Your task to perform on an android device: toggle notification dots Image 0: 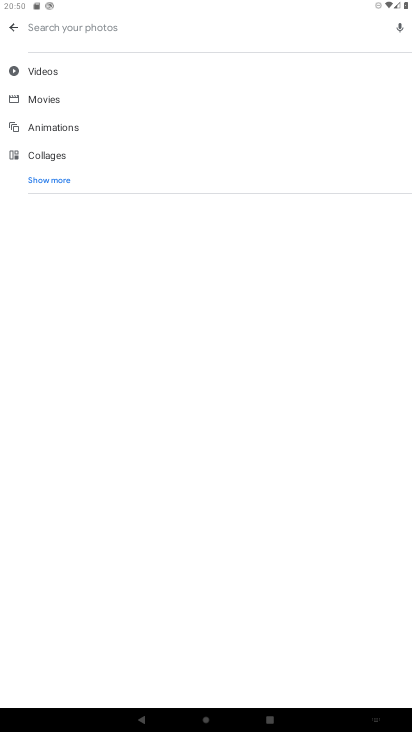
Step 0: press home button
Your task to perform on an android device: toggle notification dots Image 1: 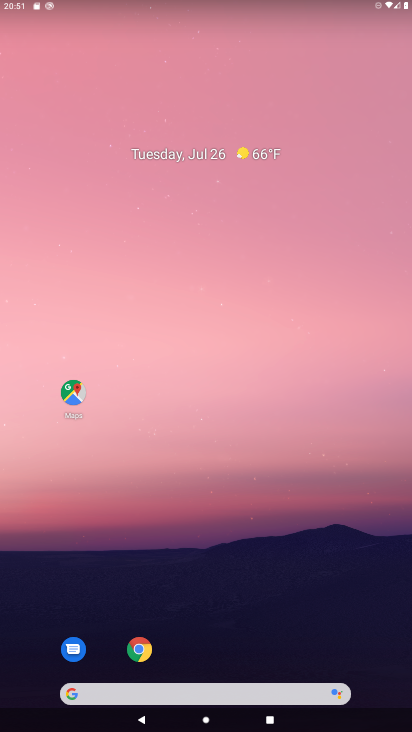
Step 1: drag from (171, 625) to (372, 277)
Your task to perform on an android device: toggle notification dots Image 2: 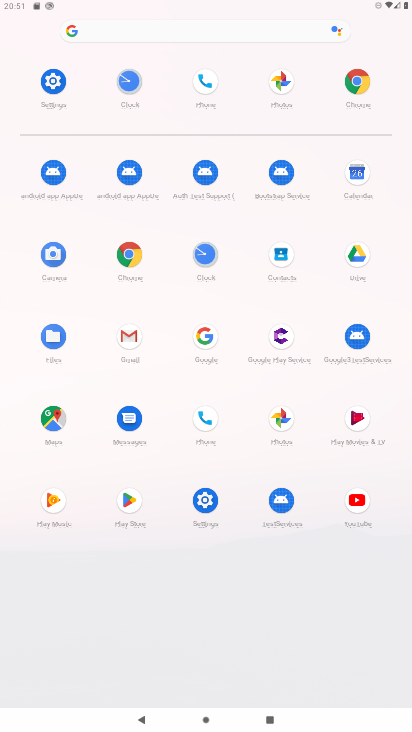
Step 2: click (59, 70)
Your task to perform on an android device: toggle notification dots Image 3: 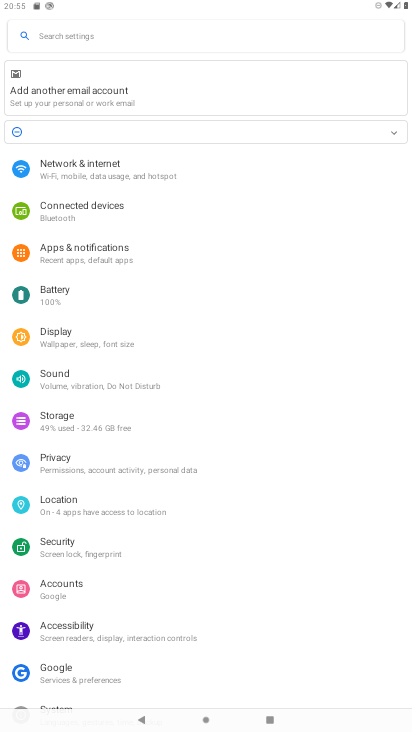
Step 3: click (83, 249)
Your task to perform on an android device: toggle notification dots Image 4: 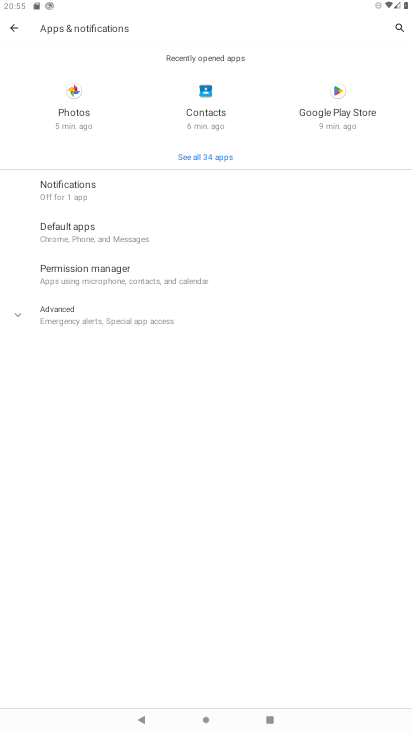
Step 4: click (107, 197)
Your task to perform on an android device: toggle notification dots Image 5: 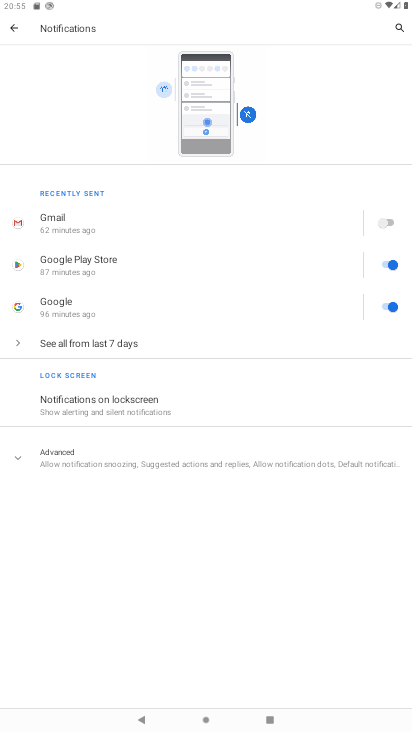
Step 5: click (146, 473)
Your task to perform on an android device: toggle notification dots Image 6: 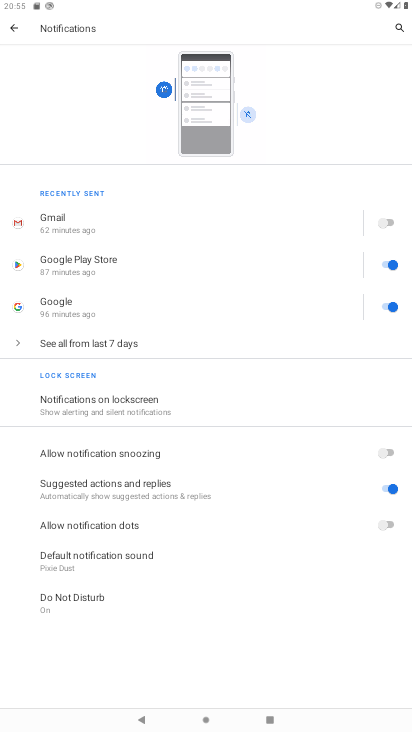
Step 6: click (376, 522)
Your task to perform on an android device: toggle notification dots Image 7: 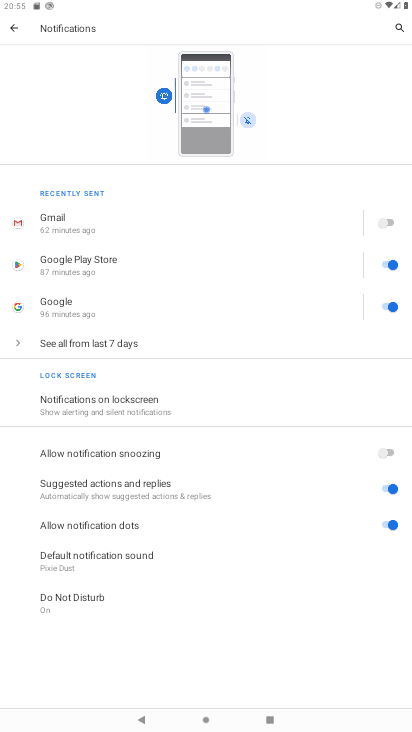
Step 7: task complete